Your task to perform on an android device: check out phone information Image 0: 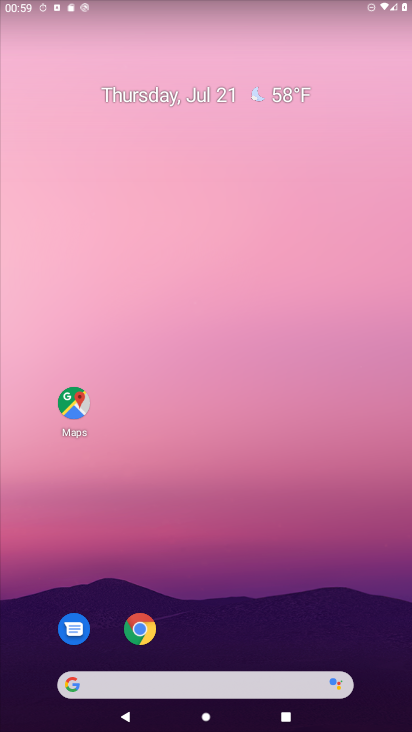
Step 0: drag from (215, 621) to (215, 189)
Your task to perform on an android device: check out phone information Image 1: 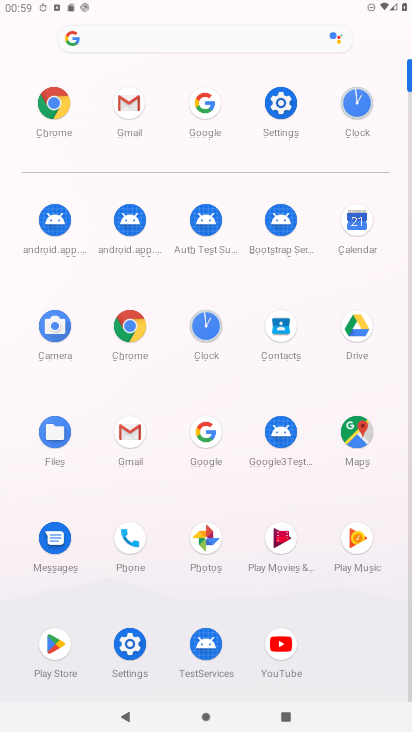
Step 1: click (274, 113)
Your task to perform on an android device: check out phone information Image 2: 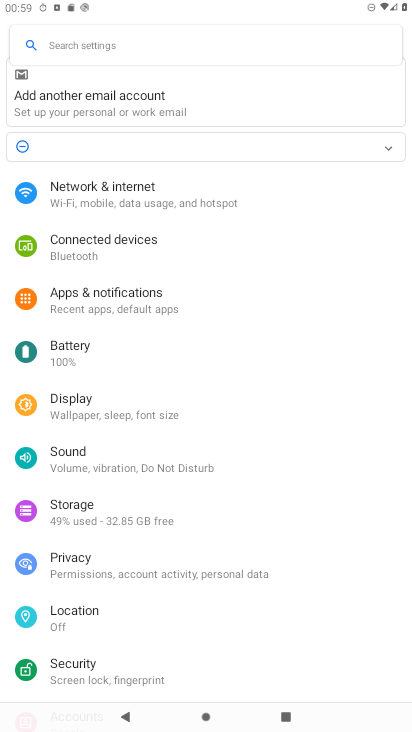
Step 2: drag from (193, 632) to (188, 101)
Your task to perform on an android device: check out phone information Image 3: 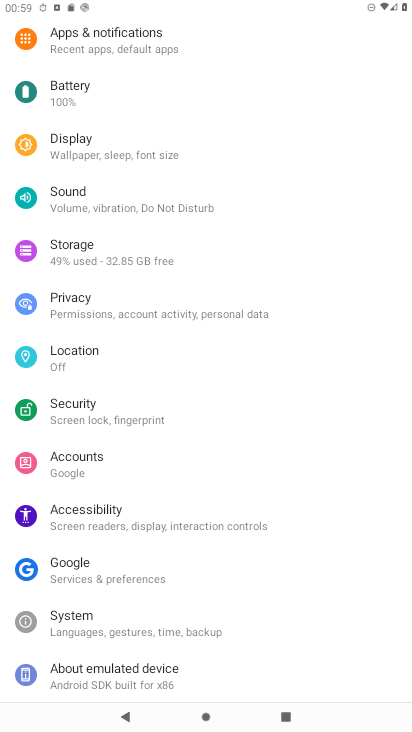
Step 3: click (152, 689)
Your task to perform on an android device: check out phone information Image 4: 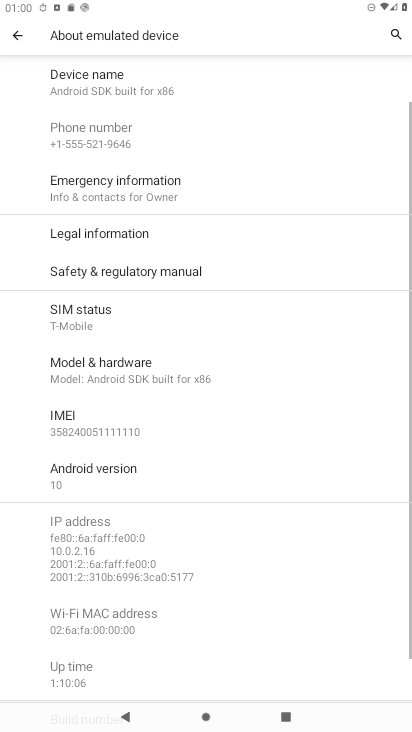
Step 4: task complete